Your task to perform on an android device: Open calendar and show me the third week of next month Image 0: 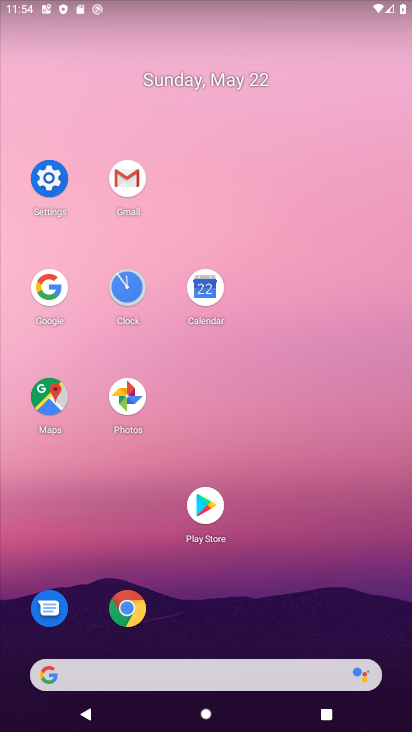
Step 0: click (213, 284)
Your task to perform on an android device: Open calendar and show me the third week of next month Image 1: 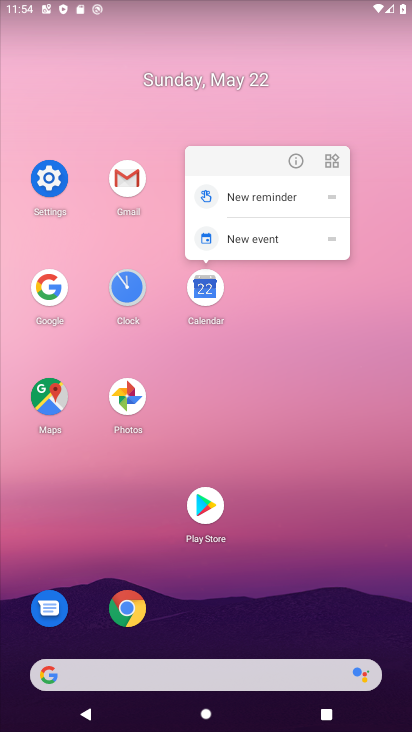
Step 1: click (213, 284)
Your task to perform on an android device: Open calendar and show me the third week of next month Image 2: 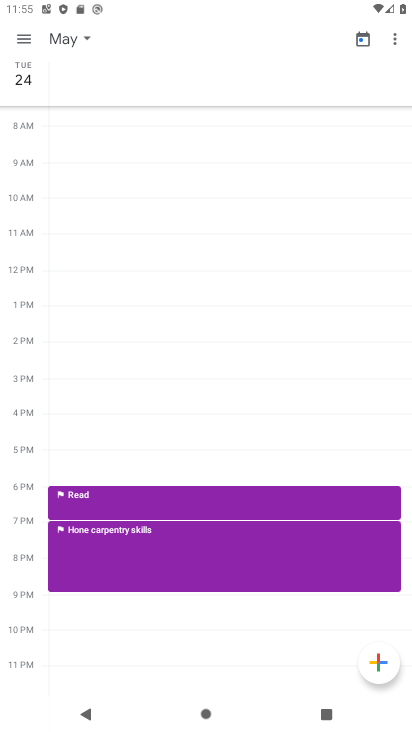
Step 2: click (68, 37)
Your task to perform on an android device: Open calendar and show me the third week of next month Image 3: 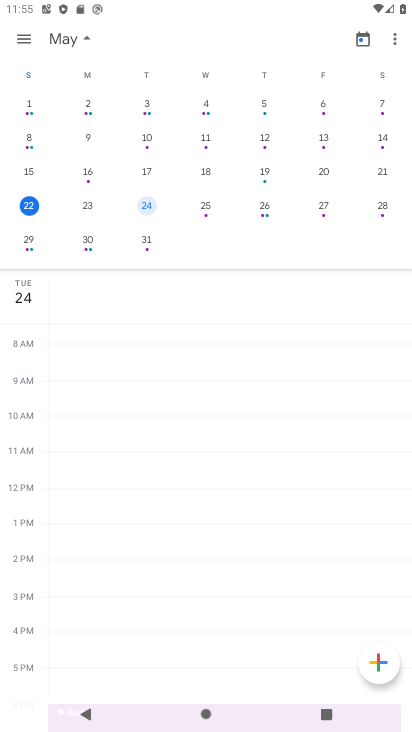
Step 3: drag from (384, 173) to (23, 69)
Your task to perform on an android device: Open calendar and show me the third week of next month Image 4: 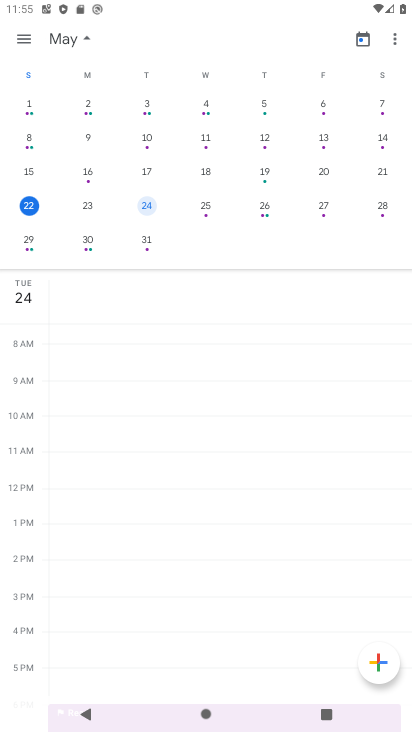
Step 4: drag from (340, 176) to (0, 202)
Your task to perform on an android device: Open calendar and show me the third week of next month Image 5: 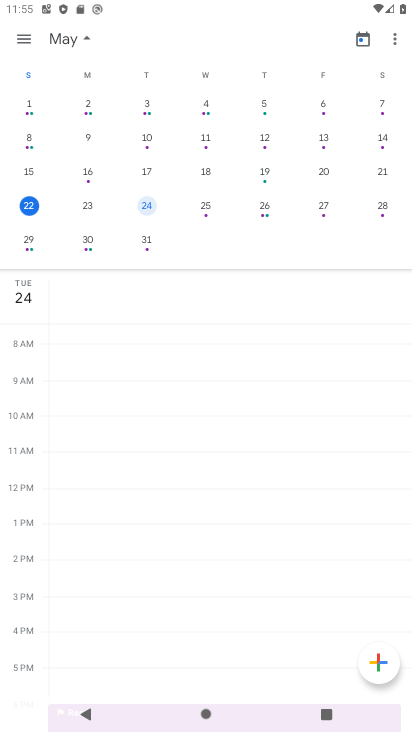
Step 5: drag from (360, 171) to (21, 298)
Your task to perform on an android device: Open calendar and show me the third week of next month Image 6: 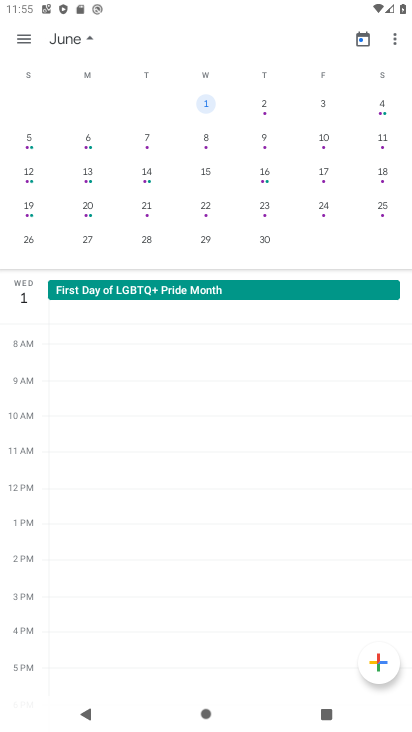
Step 6: click (28, 45)
Your task to perform on an android device: Open calendar and show me the third week of next month Image 7: 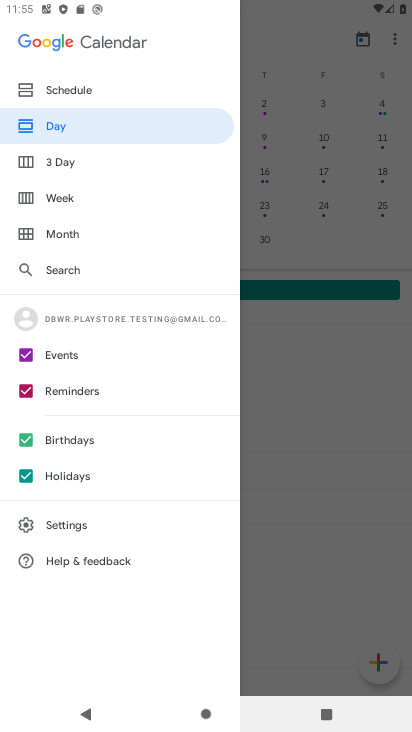
Step 7: click (96, 194)
Your task to perform on an android device: Open calendar and show me the third week of next month Image 8: 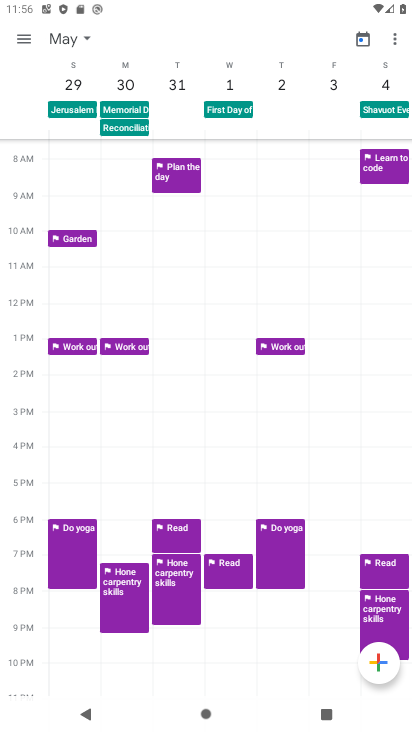
Step 8: task complete